Your task to perform on an android device: delete browsing data in the chrome app Image 0: 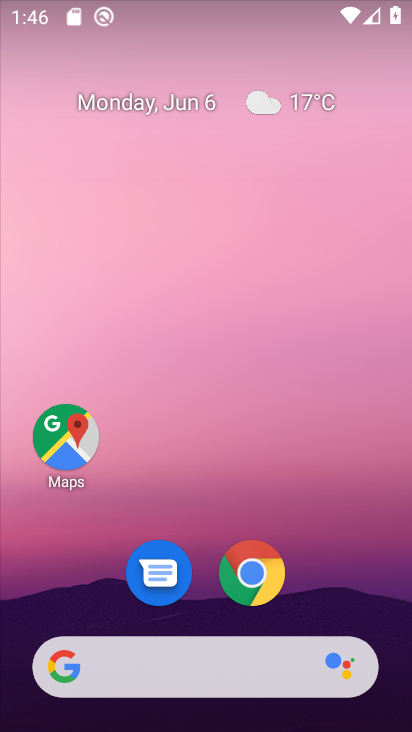
Step 0: drag from (389, 632) to (288, 64)
Your task to perform on an android device: delete browsing data in the chrome app Image 1: 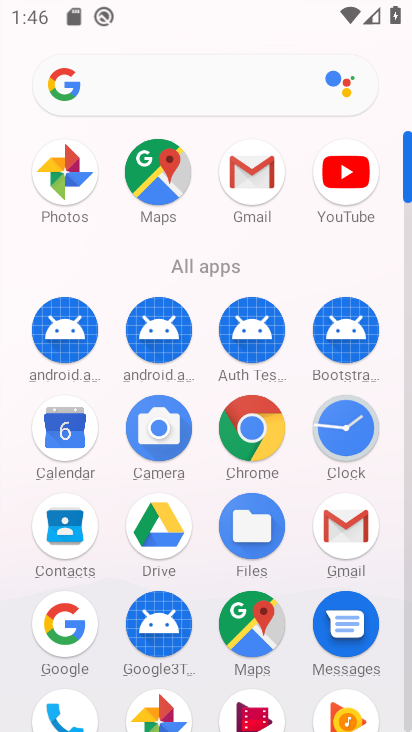
Step 1: click (266, 424)
Your task to perform on an android device: delete browsing data in the chrome app Image 2: 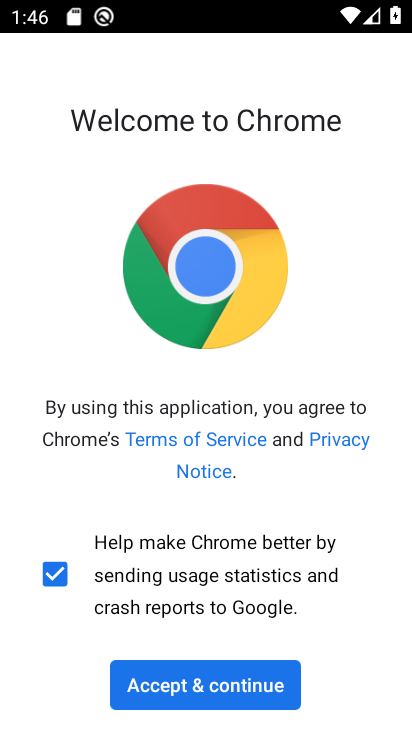
Step 2: click (212, 684)
Your task to perform on an android device: delete browsing data in the chrome app Image 3: 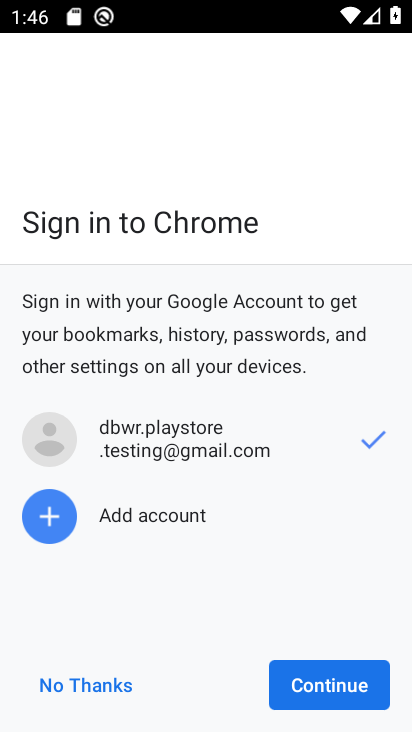
Step 3: click (336, 693)
Your task to perform on an android device: delete browsing data in the chrome app Image 4: 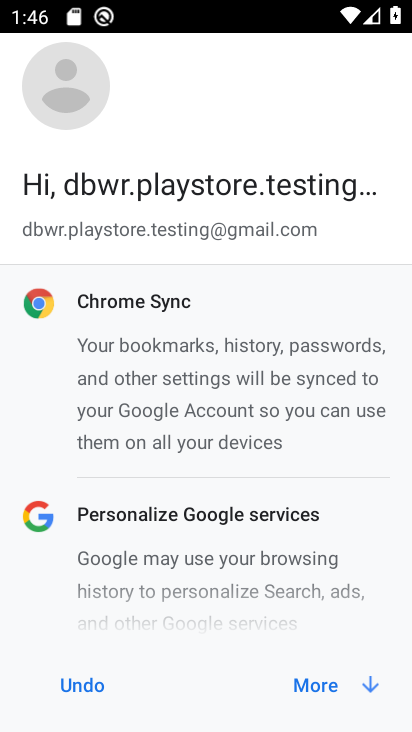
Step 4: click (337, 689)
Your task to perform on an android device: delete browsing data in the chrome app Image 5: 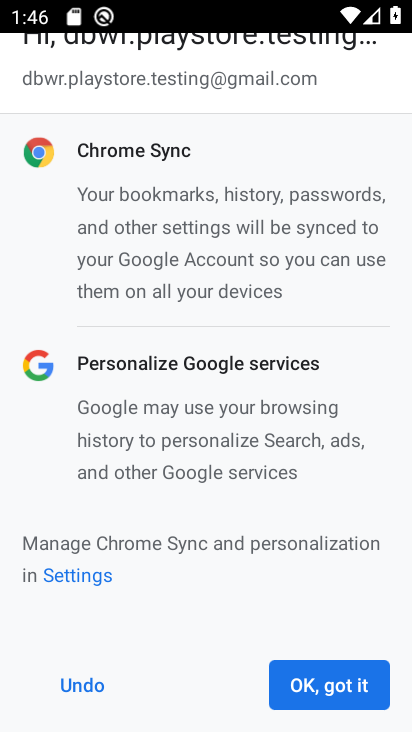
Step 5: click (337, 689)
Your task to perform on an android device: delete browsing data in the chrome app Image 6: 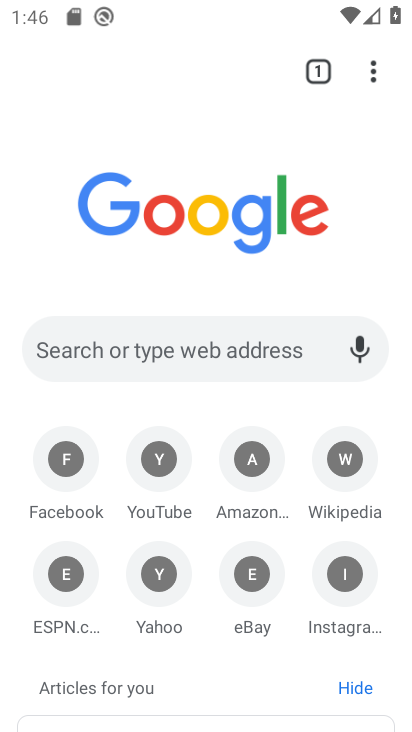
Step 6: click (380, 63)
Your task to perform on an android device: delete browsing data in the chrome app Image 7: 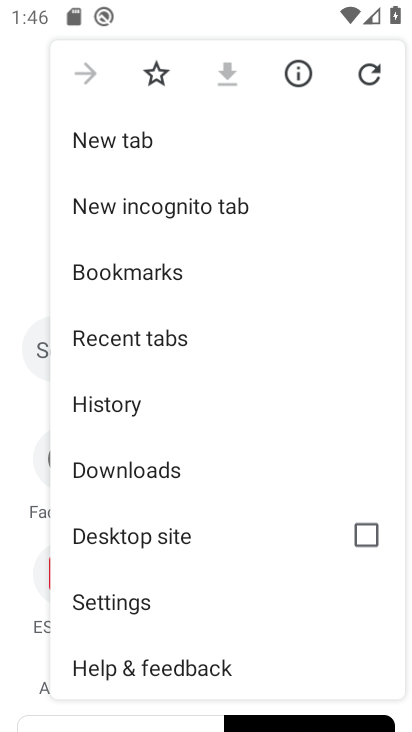
Step 7: click (171, 421)
Your task to perform on an android device: delete browsing data in the chrome app Image 8: 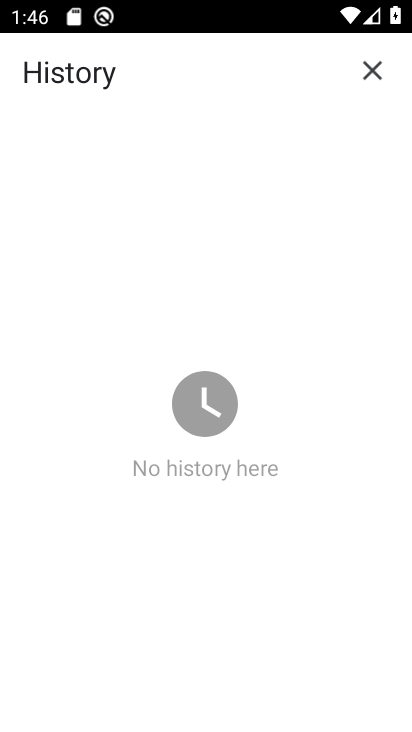
Step 8: task complete